Your task to perform on an android device: When is my next meeting? Image 0: 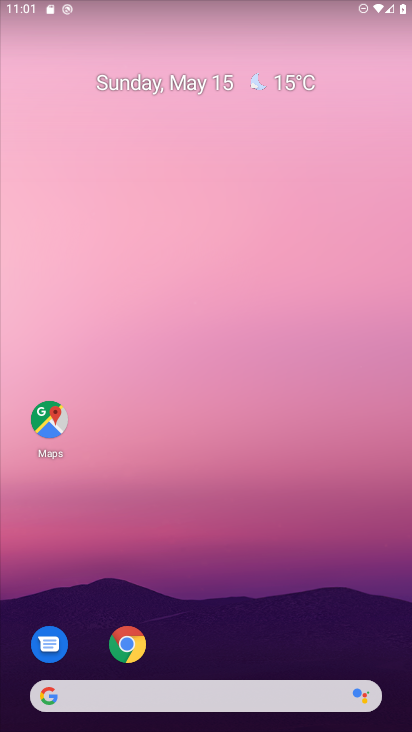
Step 0: drag from (140, 670) to (287, 170)
Your task to perform on an android device: When is my next meeting? Image 1: 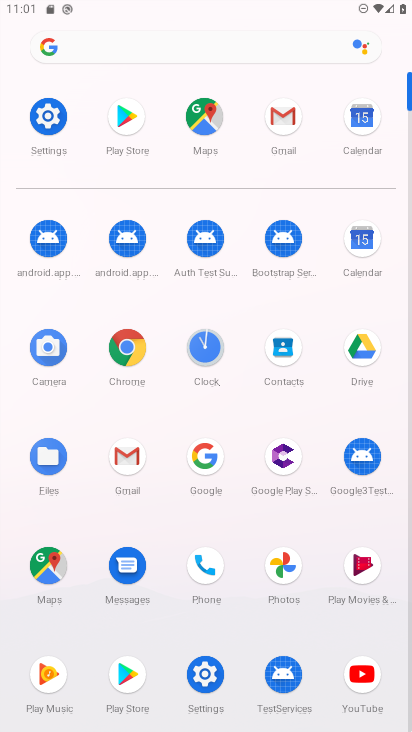
Step 1: click (370, 243)
Your task to perform on an android device: When is my next meeting? Image 2: 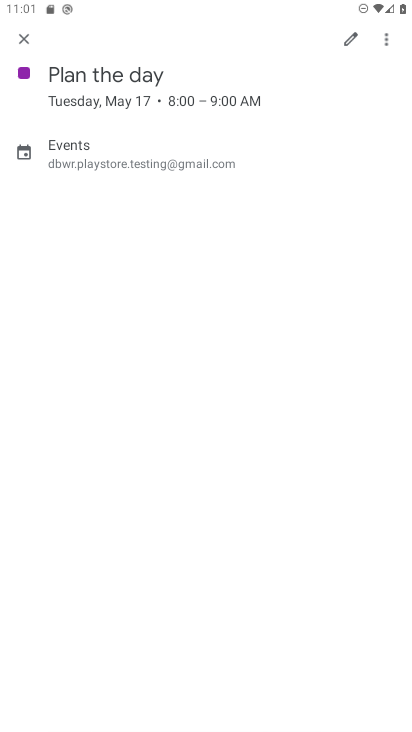
Step 2: click (29, 34)
Your task to perform on an android device: When is my next meeting? Image 3: 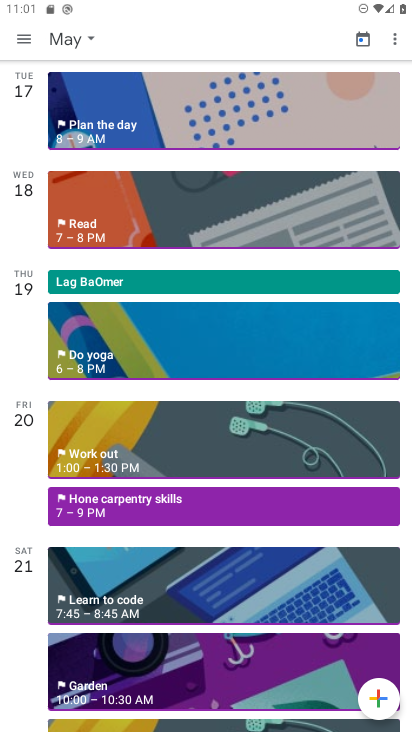
Step 3: drag from (188, 78) to (190, 458)
Your task to perform on an android device: When is my next meeting? Image 4: 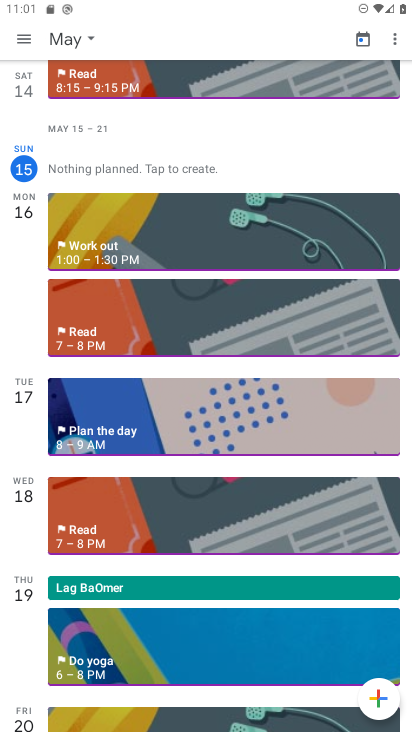
Step 4: click (138, 413)
Your task to perform on an android device: When is my next meeting? Image 5: 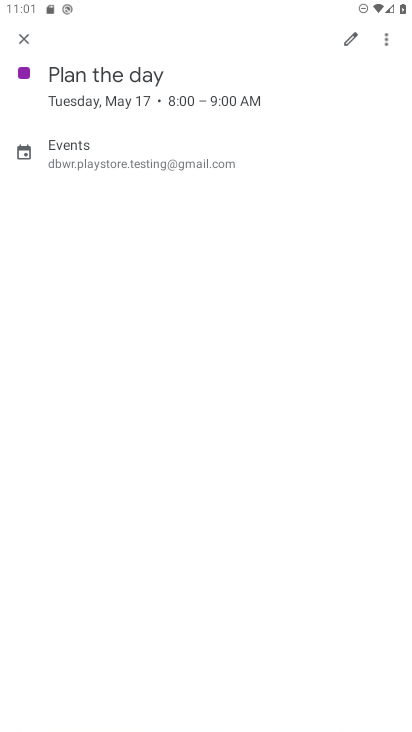
Step 5: task complete